Your task to perform on an android device: Open Maps and search for coffee Image 0: 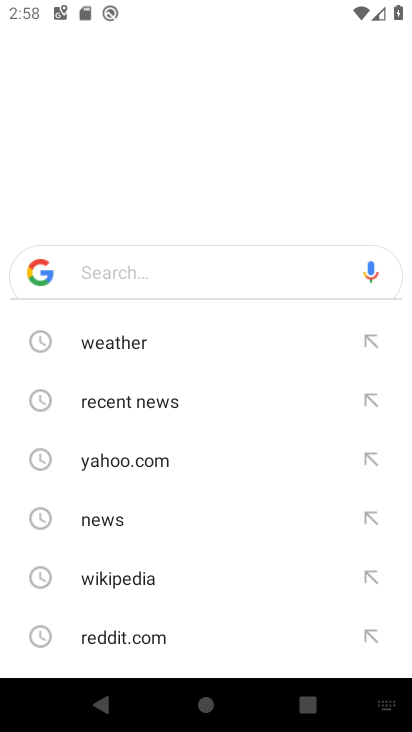
Step 0: press back button
Your task to perform on an android device: Open Maps and search for coffee Image 1: 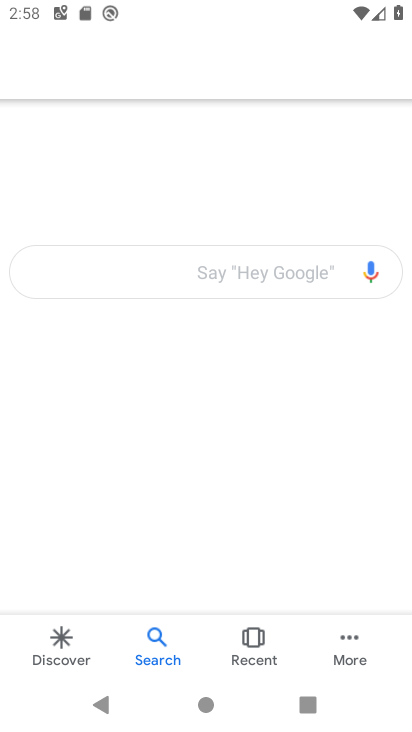
Step 1: press home button
Your task to perform on an android device: Open Maps and search for coffee Image 2: 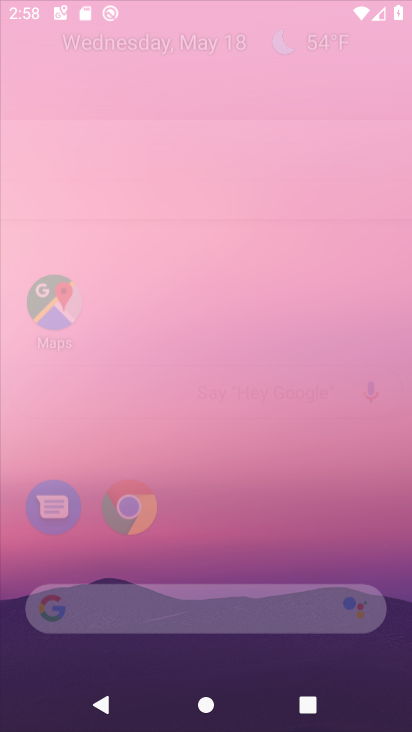
Step 2: press home button
Your task to perform on an android device: Open Maps and search for coffee Image 3: 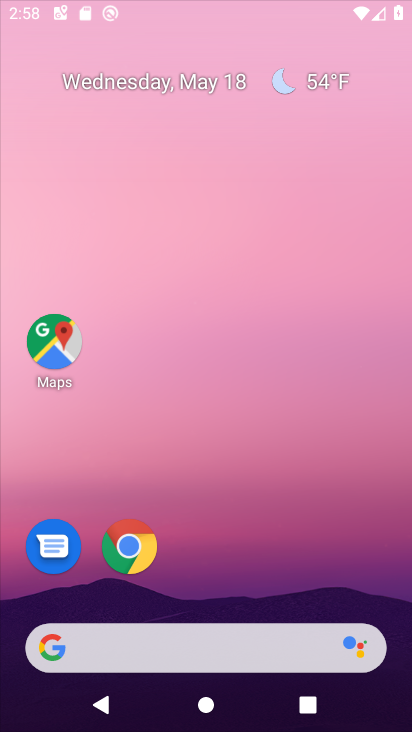
Step 3: press home button
Your task to perform on an android device: Open Maps and search for coffee Image 4: 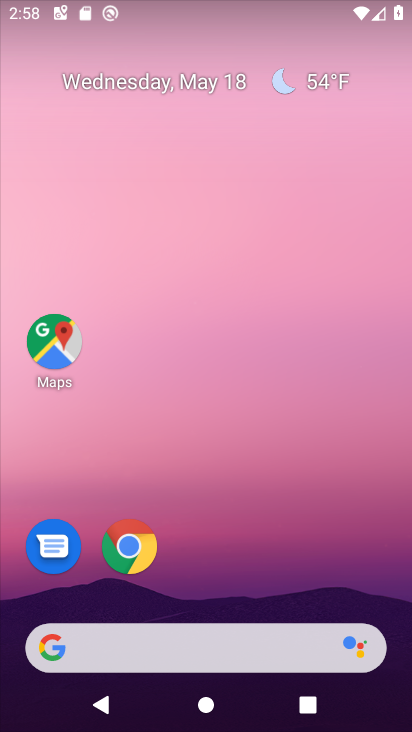
Step 4: drag from (218, 647) to (177, 158)
Your task to perform on an android device: Open Maps and search for coffee Image 5: 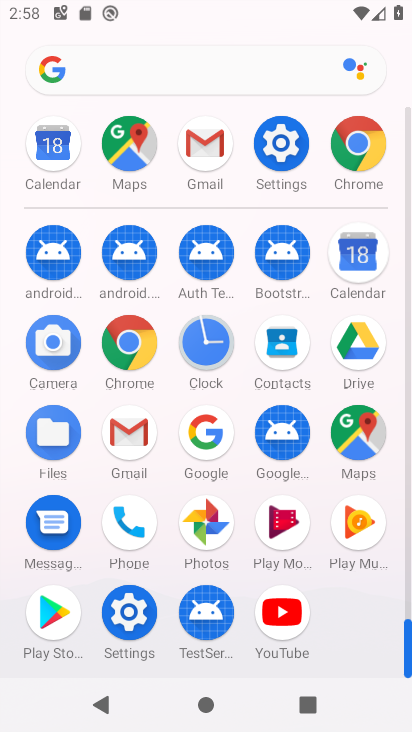
Step 5: click (342, 432)
Your task to perform on an android device: Open Maps and search for coffee Image 6: 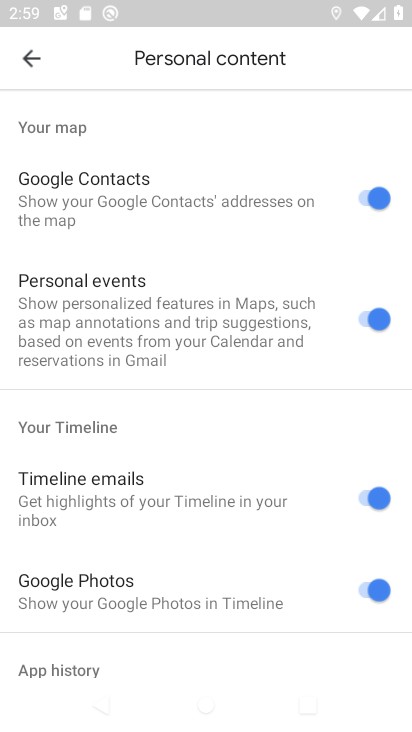
Step 6: click (23, 58)
Your task to perform on an android device: Open Maps and search for coffee Image 7: 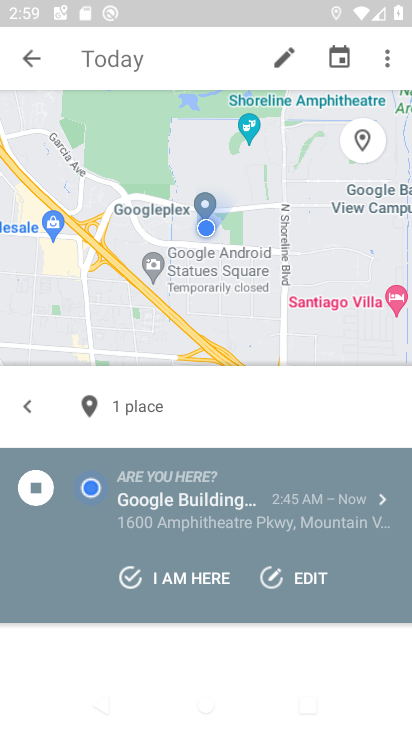
Step 7: click (71, 63)
Your task to perform on an android device: Open Maps and search for coffee Image 8: 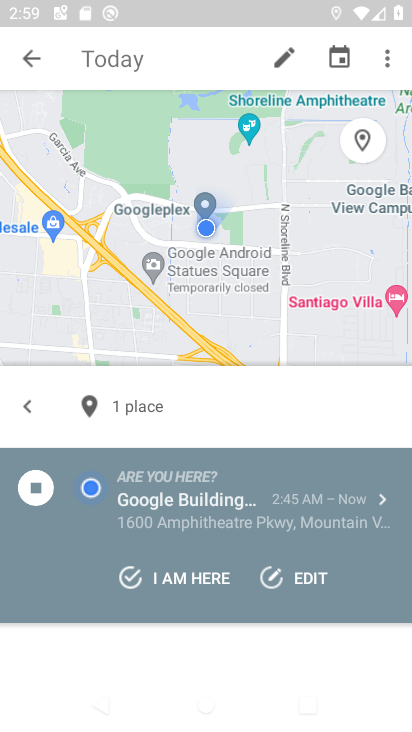
Step 8: click (85, 59)
Your task to perform on an android device: Open Maps and search for coffee Image 9: 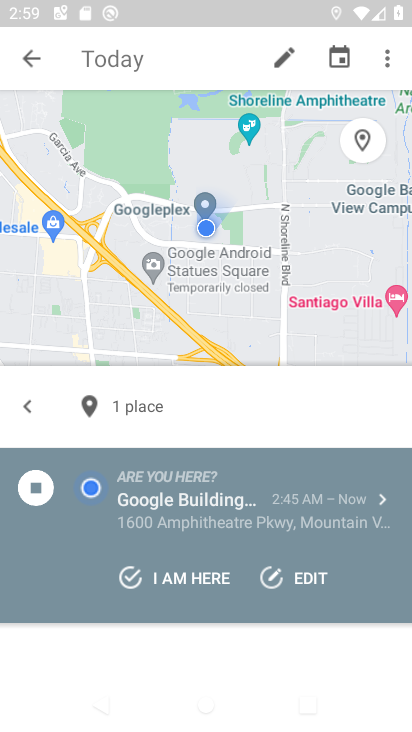
Step 9: click (93, 66)
Your task to perform on an android device: Open Maps and search for coffee Image 10: 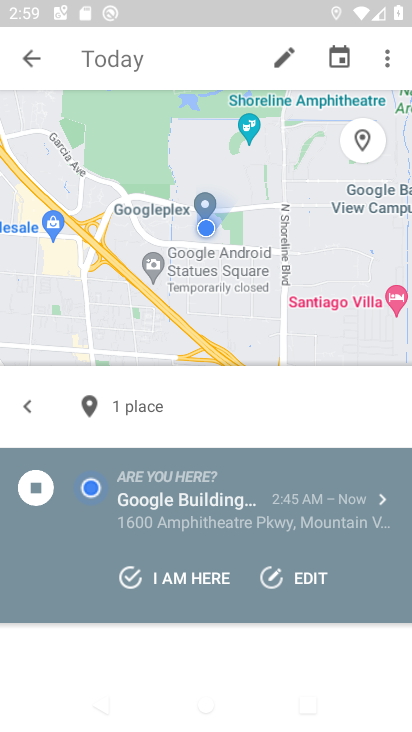
Step 10: click (93, 66)
Your task to perform on an android device: Open Maps and search for coffee Image 11: 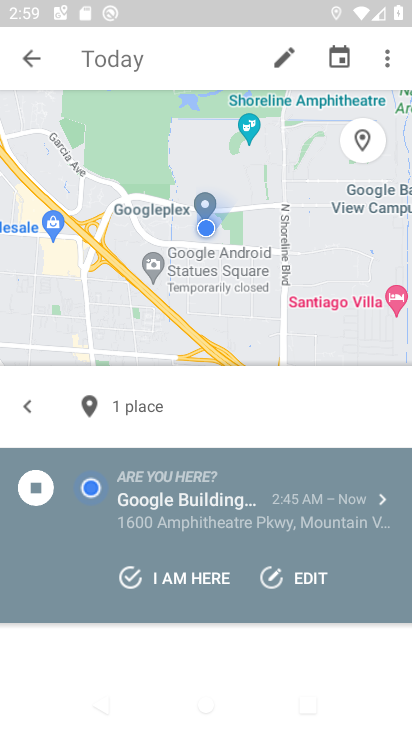
Step 11: click (93, 66)
Your task to perform on an android device: Open Maps and search for coffee Image 12: 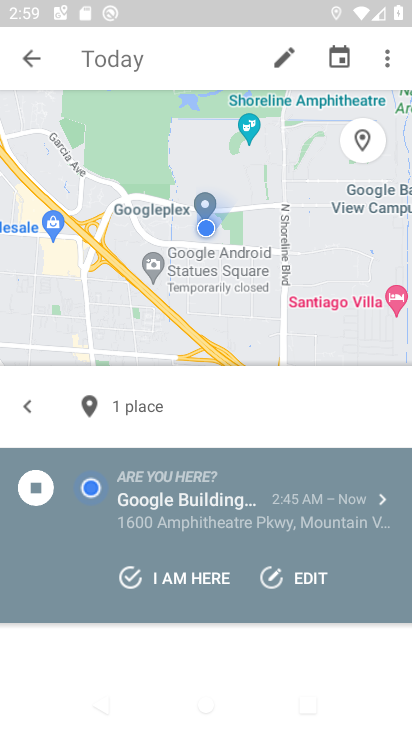
Step 12: click (93, 66)
Your task to perform on an android device: Open Maps and search for coffee Image 13: 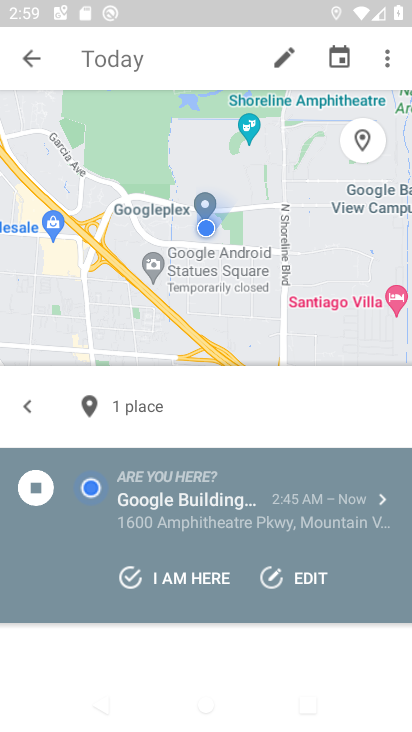
Step 13: click (93, 66)
Your task to perform on an android device: Open Maps and search for coffee Image 14: 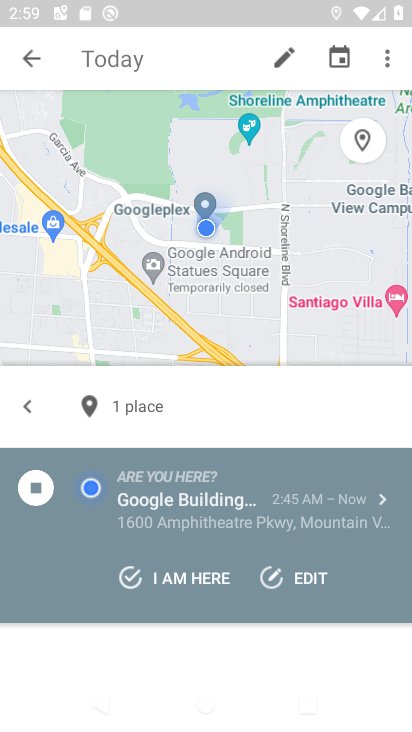
Step 14: click (93, 60)
Your task to perform on an android device: Open Maps and search for coffee Image 15: 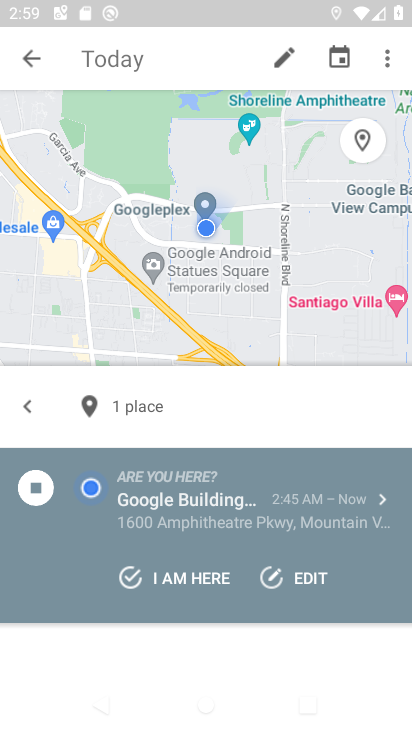
Step 15: click (93, 60)
Your task to perform on an android device: Open Maps and search for coffee Image 16: 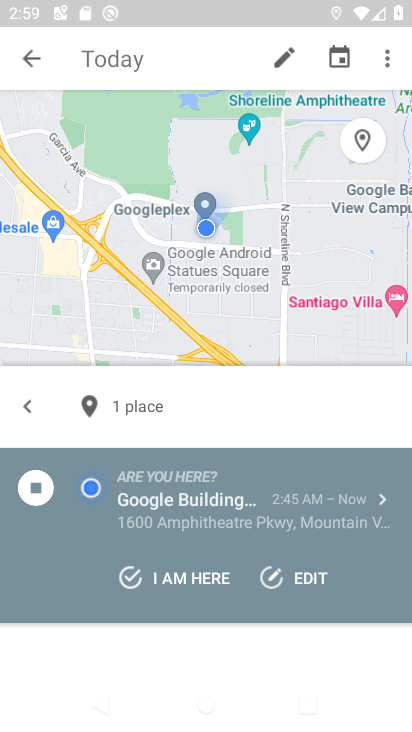
Step 16: click (84, 49)
Your task to perform on an android device: Open Maps and search for coffee Image 17: 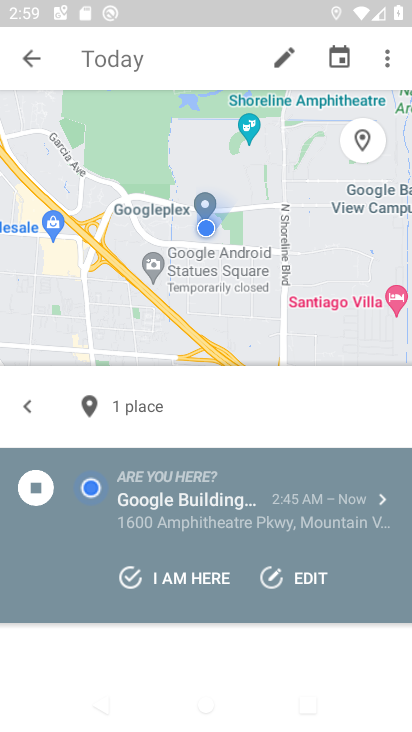
Step 17: click (84, 69)
Your task to perform on an android device: Open Maps and search for coffee Image 18: 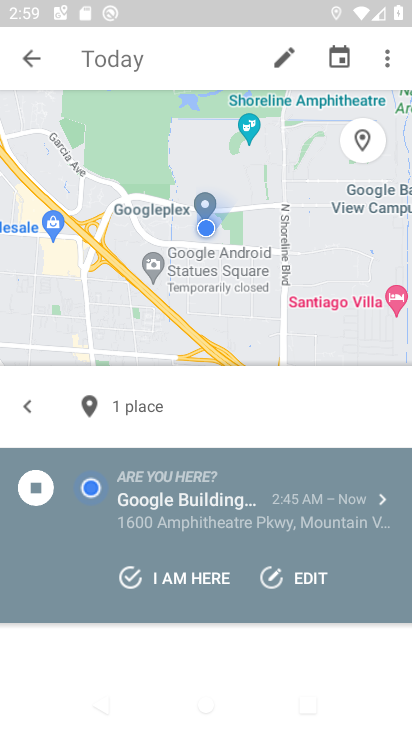
Step 18: click (97, 59)
Your task to perform on an android device: Open Maps and search for coffee Image 19: 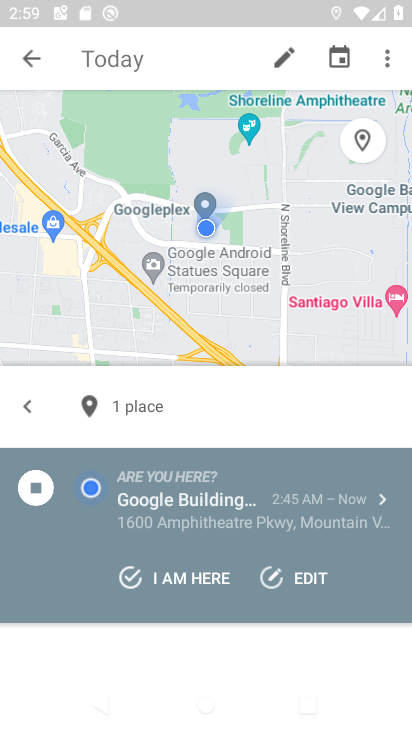
Step 19: click (113, 40)
Your task to perform on an android device: Open Maps and search for coffee Image 20: 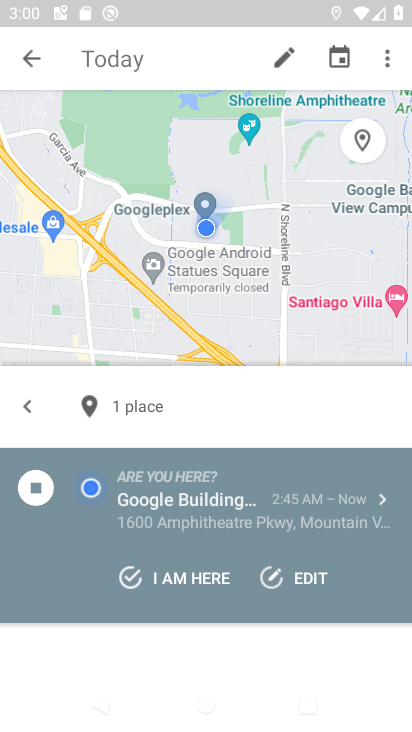
Step 20: type "coffee"
Your task to perform on an android device: Open Maps and search for coffee Image 21: 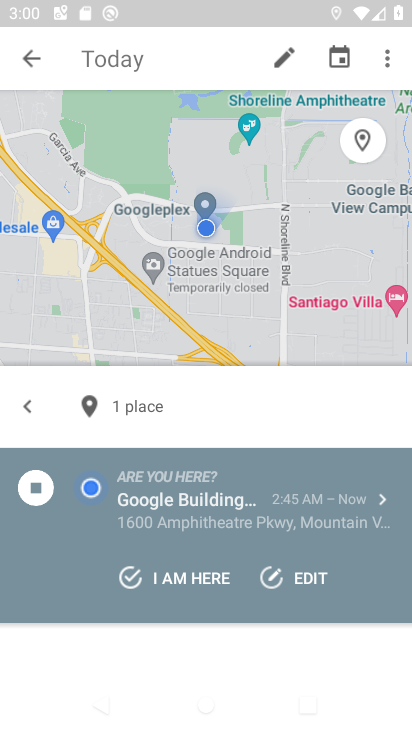
Step 21: task complete